Your task to perform on an android device: Set the phone to "Do not disturb". Image 0: 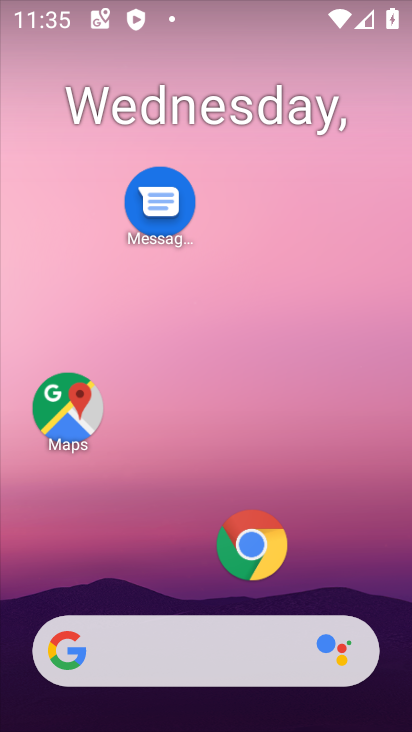
Step 0: drag from (189, 532) to (214, 221)
Your task to perform on an android device: Set the phone to "Do not disturb". Image 1: 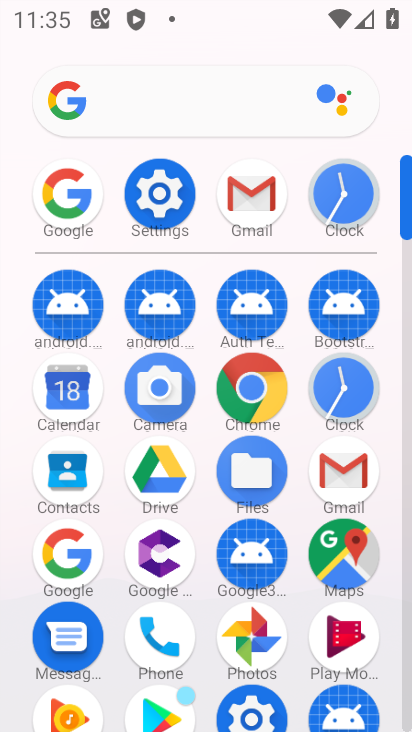
Step 1: click (166, 208)
Your task to perform on an android device: Set the phone to "Do not disturb". Image 2: 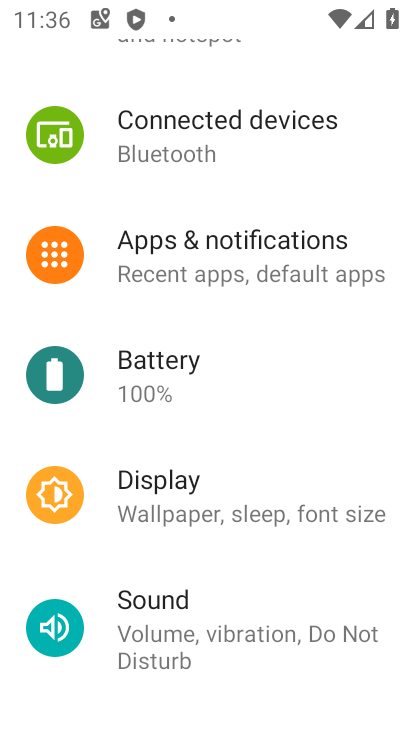
Step 2: click (232, 598)
Your task to perform on an android device: Set the phone to "Do not disturb". Image 3: 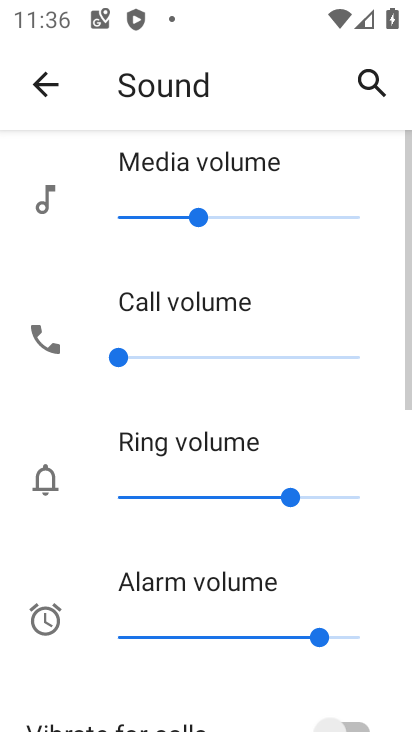
Step 3: drag from (212, 663) to (237, 308)
Your task to perform on an android device: Set the phone to "Do not disturb". Image 4: 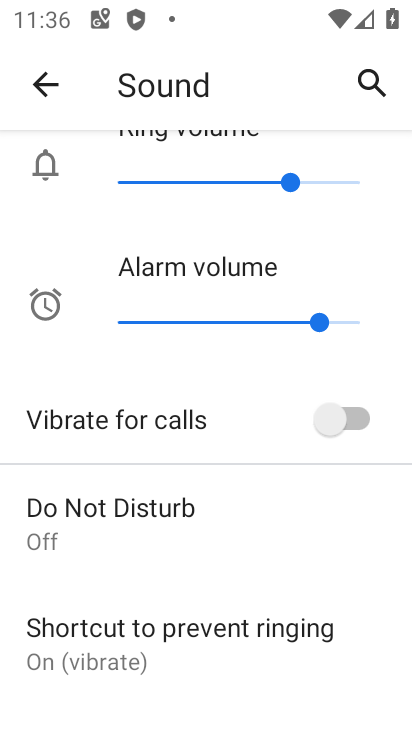
Step 4: click (130, 523)
Your task to perform on an android device: Set the phone to "Do not disturb". Image 5: 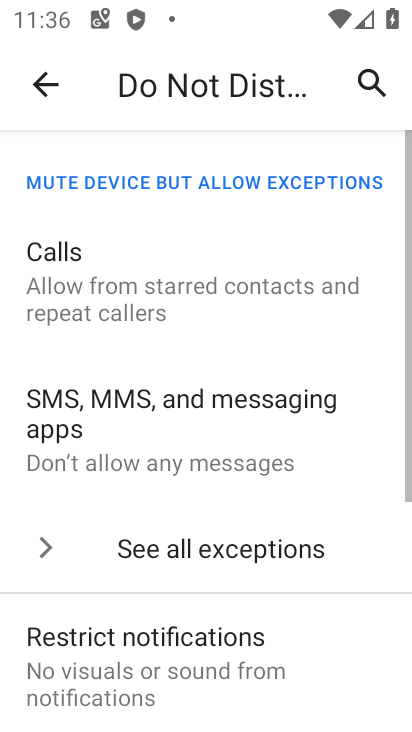
Step 5: drag from (226, 661) to (233, 368)
Your task to perform on an android device: Set the phone to "Do not disturb". Image 6: 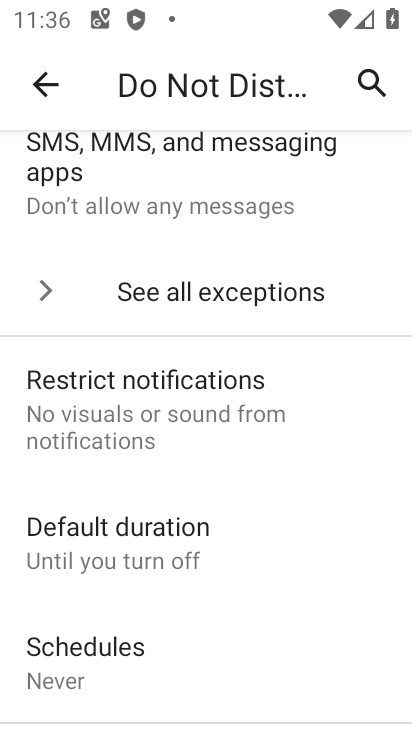
Step 6: drag from (212, 623) to (213, 383)
Your task to perform on an android device: Set the phone to "Do not disturb". Image 7: 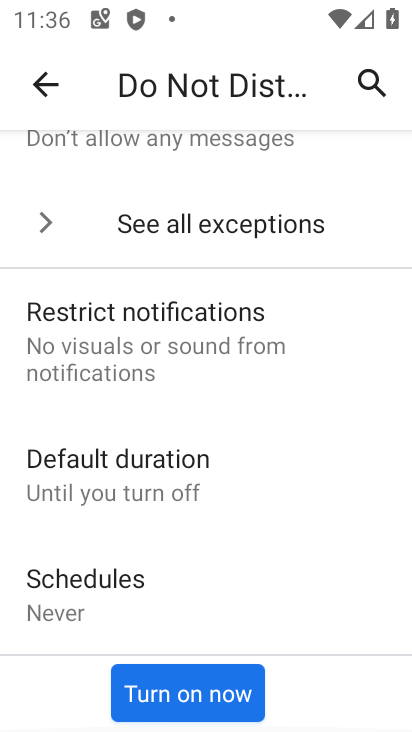
Step 7: click (174, 693)
Your task to perform on an android device: Set the phone to "Do not disturb". Image 8: 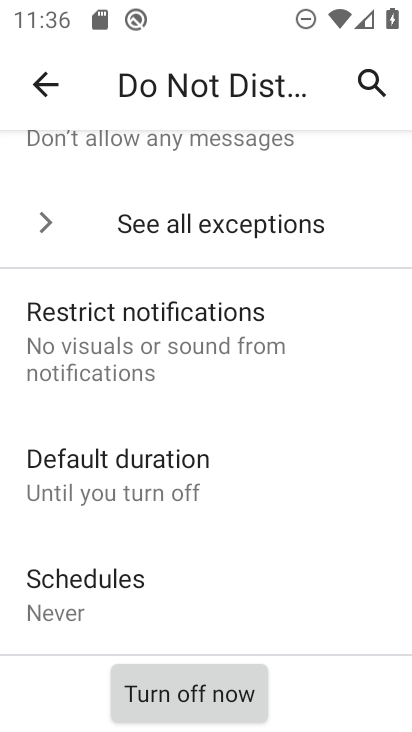
Step 8: task complete